Your task to perform on an android device: Show me popular videos on Youtube Image 0: 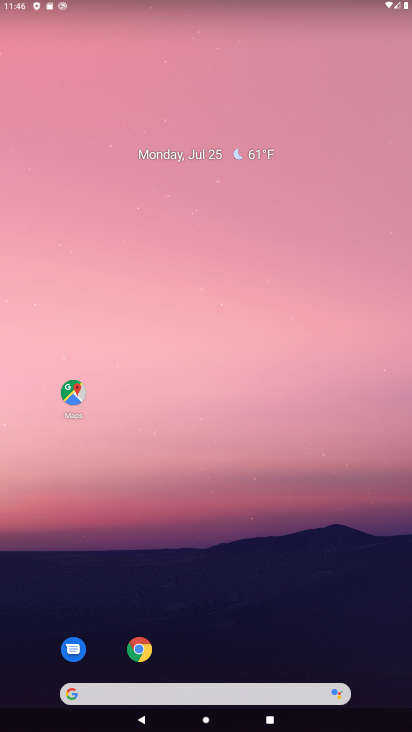
Step 0: drag from (187, 691) to (269, 0)
Your task to perform on an android device: Show me popular videos on Youtube Image 1: 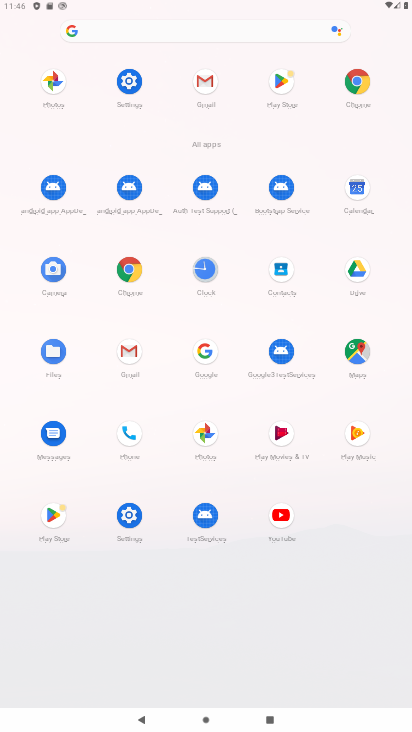
Step 1: click (293, 518)
Your task to perform on an android device: Show me popular videos on Youtube Image 2: 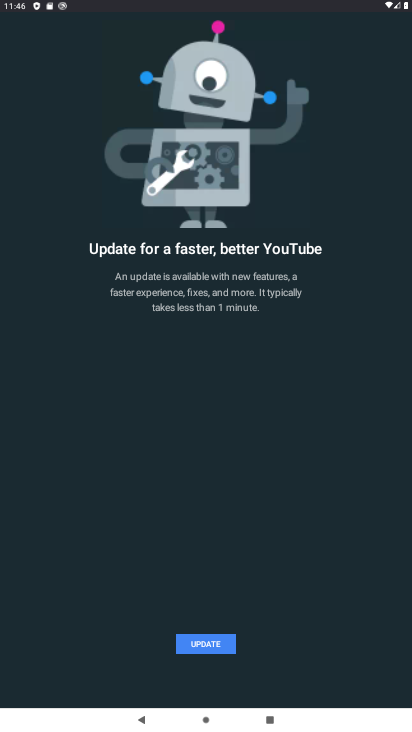
Step 2: click (133, 644)
Your task to perform on an android device: Show me popular videos on Youtube Image 3: 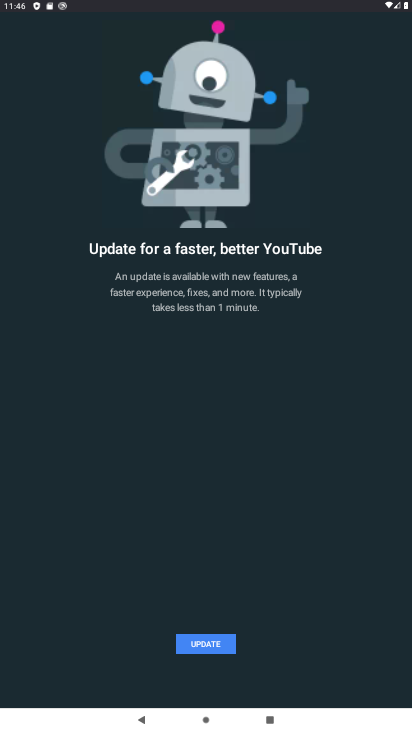
Step 3: click (195, 639)
Your task to perform on an android device: Show me popular videos on Youtube Image 4: 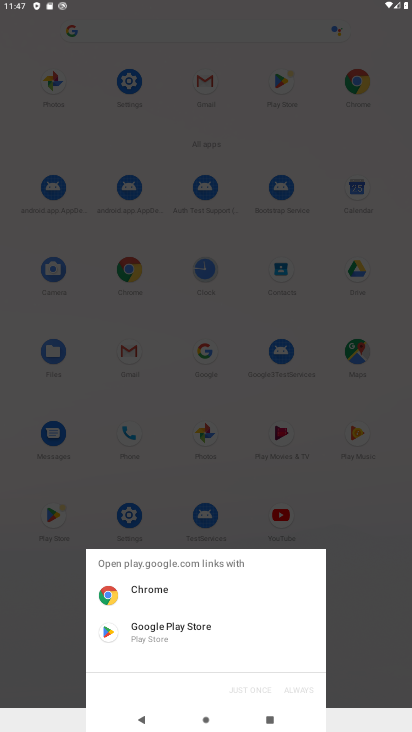
Step 4: click (196, 635)
Your task to perform on an android device: Show me popular videos on Youtube Image 5: 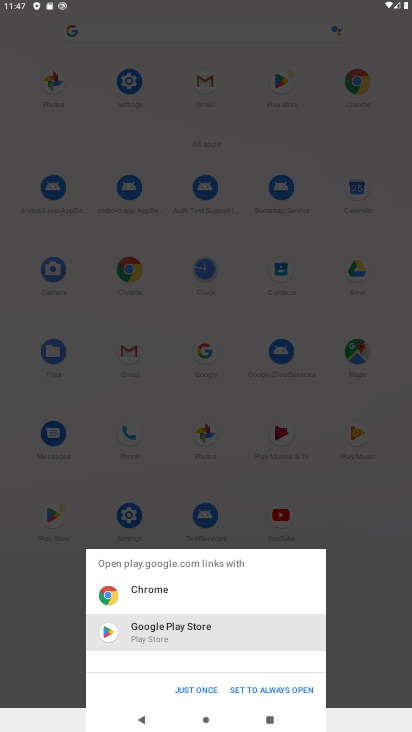
Step 5: click (204, 688)
Your task to perform on an android device: Show me popular videos on Youtube Image 6: 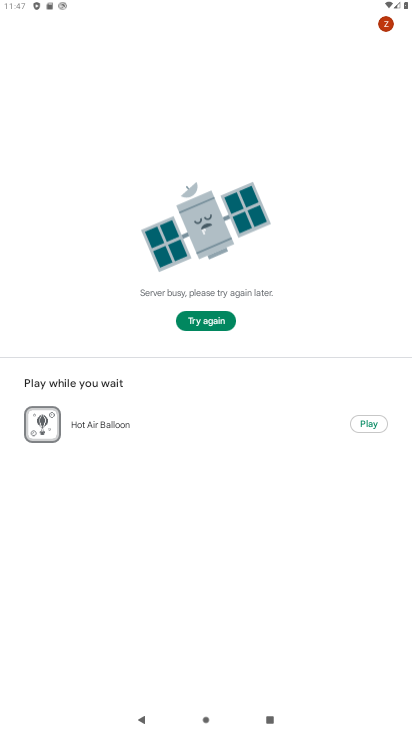
Step 6: task complete